Your task to perform on an android device: add a label to a message in the gmail app Image 0: 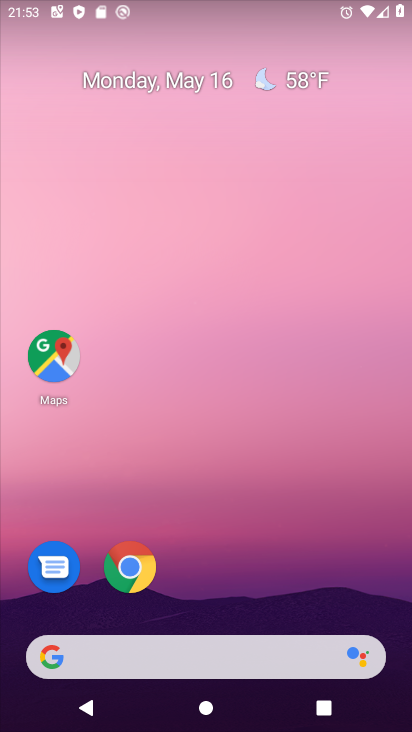
Step 0: drag from (256, 480) to (252, 215)
Your task to perform on an android device: add a label to a message in the gmail app Image 1: 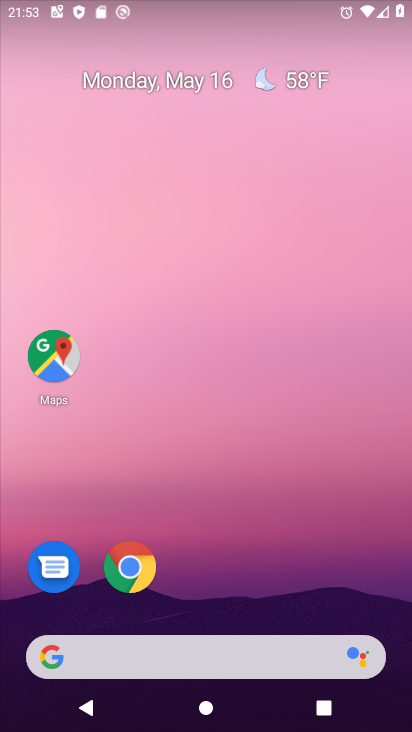
Step 1: drag from (253, 598) to (214, 251)
Your task to perform on an android device: add a label to a message in the gmail app Image 2: 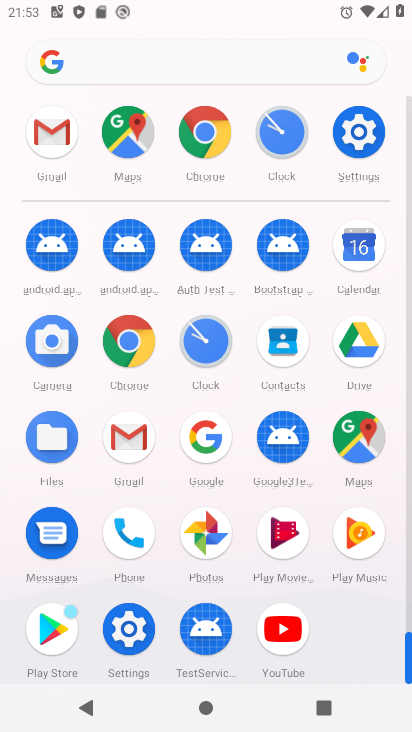
Step 2: click (130, 428)
Your task to perform on an android device: add a label to a message in the gmail app Image 3: 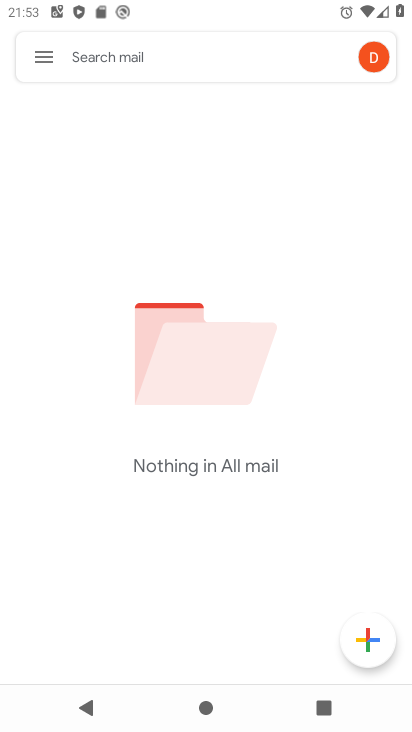
Step 3: click (33, 48)
Your task to perform on an android device: add a label to a message in the gmail app Image 4: 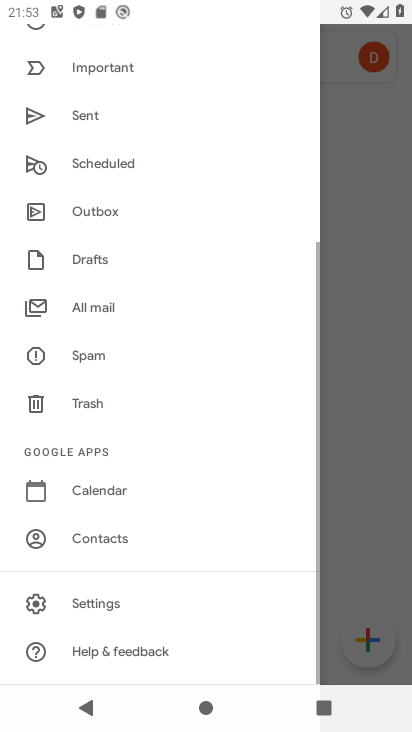
Step 4: click (357, 395)
Your task to perform on an android device: add a label to a message in the gmail app Image 5: 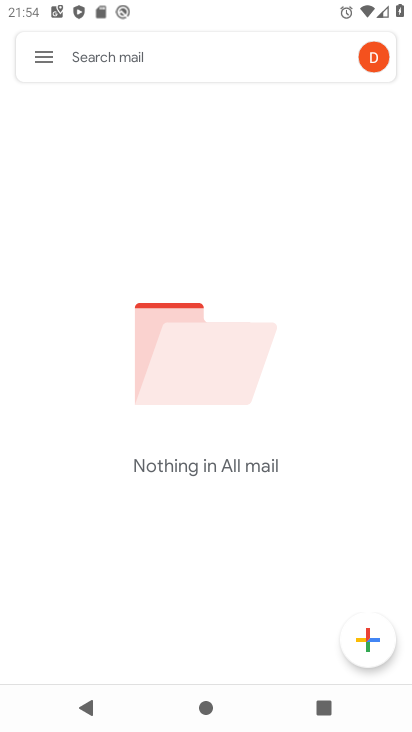
Step 5: click (47, 56)
Your task to perform on an android device: add a label to a message in the gmail app Image 6: 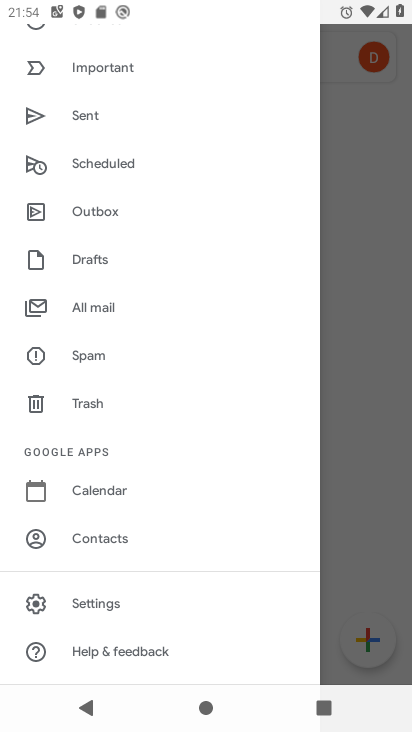
Step 6: task complete